Your task to perform on an android device: What's US dollar exchange rate against the British Pound? Image 0: 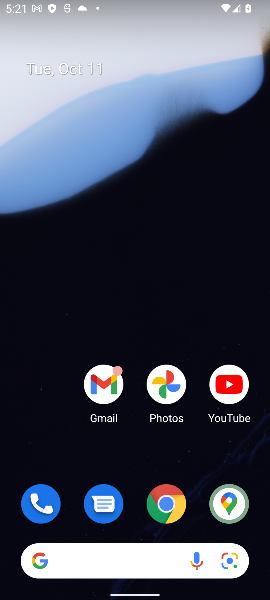
Step 0: click (97, 551)
Your task to perform on an android device: What's US dollar exchange rate against the British Pound? Image 1: 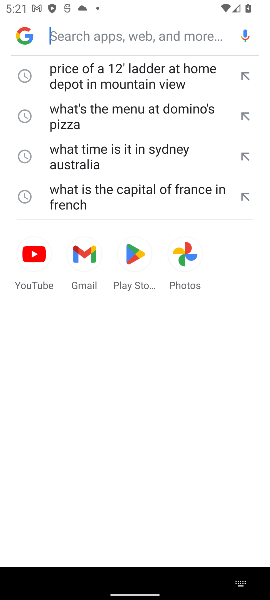
Step 1: click (143, 37)
Your task to perform on an android device: What's US dollar exchange rate against the British Pound? Image 2: 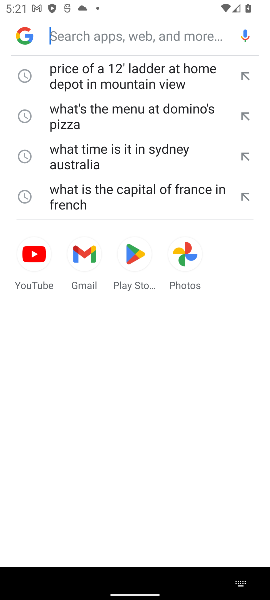
Step 2: type "What's US dollar exchange rate against the British Pound?"
Your task to perform on an android device: What's US dollar exchange rate against the British Pound? Image 3: 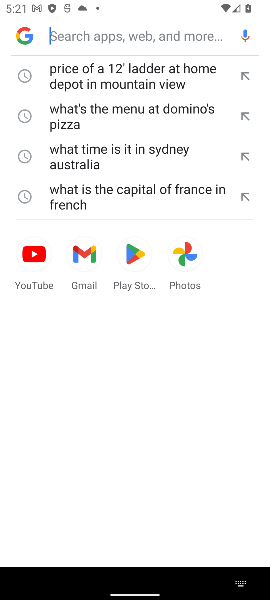
Step 3: click (118, 480)
Your task to perform on an android device: What's US dollar exchange rate against the British Pound? Image 4: 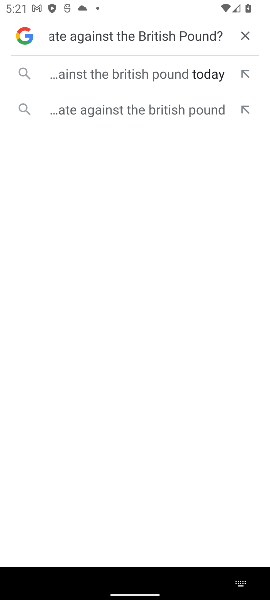
Step 4: click (172, 79)
Your task to perform on an android device: What's US dollar exchange rate against the British Pound? Image 5: 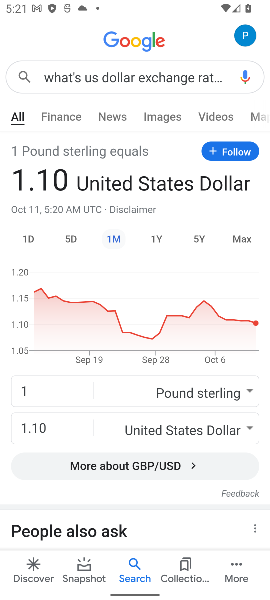
Step 5: task complete